Your task to perform on an android device: search for starred emails in the gmail app Image 0: 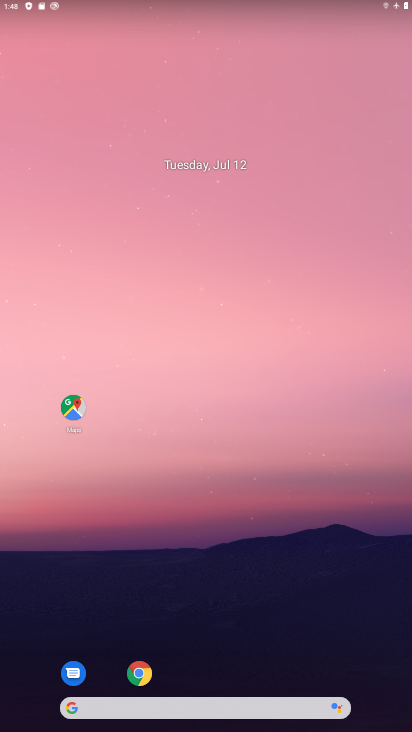
Step 0: drag from (102, 673) to (156, 287)
Your task to perform on an android device: search for starred emails in the gmail app Image 1: 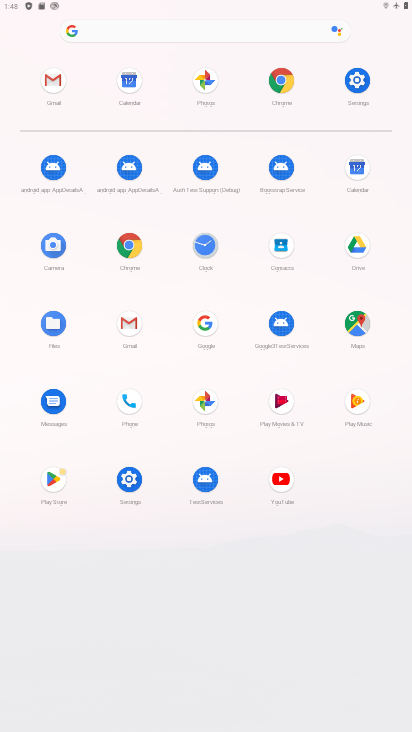
Step 1: click (140, 320)
Your task to perform on an android device: search for starred emails in the gmail app Image 2: 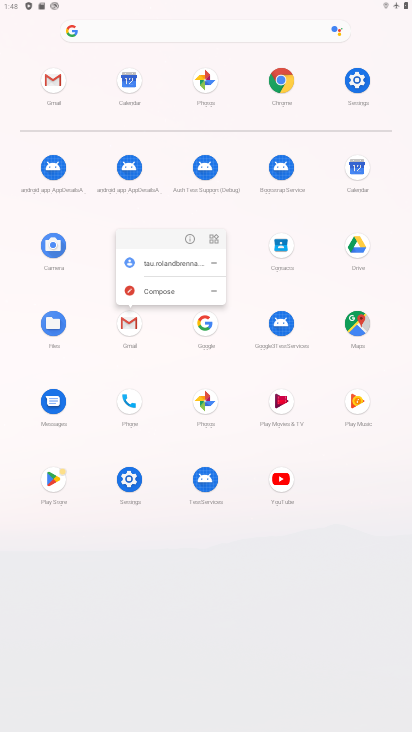
Step 2: click (118, 320)
Your task to perform on an android device: search for starred emails in the gmail app Image 3: 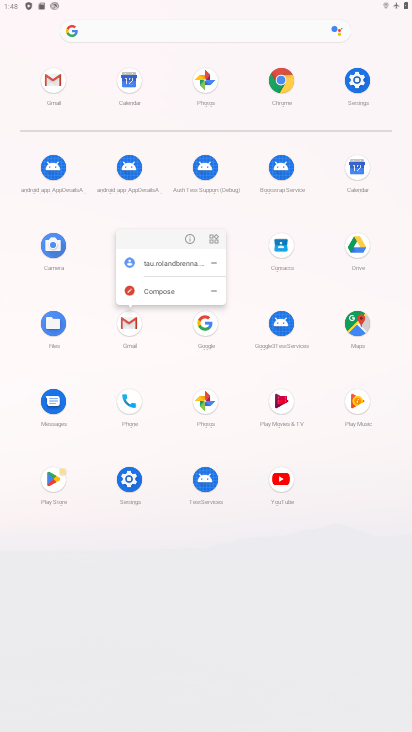
Step 3: click (124, 320)
Your task to perform on an android device: search for starred emails in the gmail app Image 4: 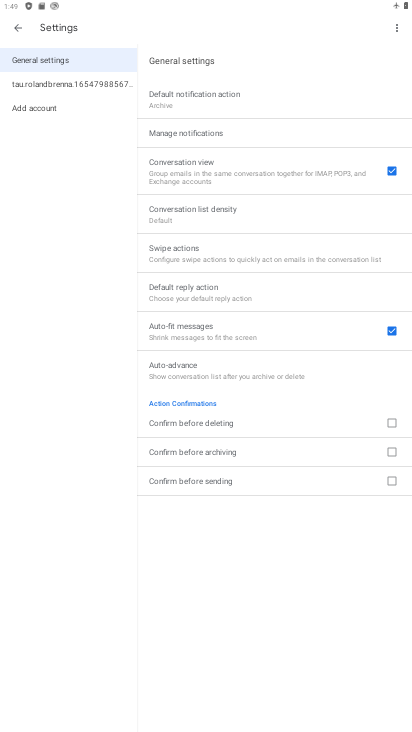
Step 4: click (17, 30)
Your task to perform on an android device: search for starred emails in the gmail app Image 5: 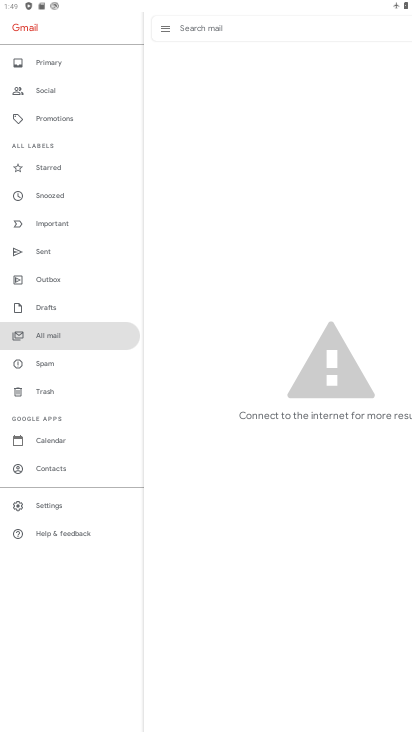
Step 5: click (60, 164)
Your task to perform on an android device: search for starred emails in the gmail app Image 6: 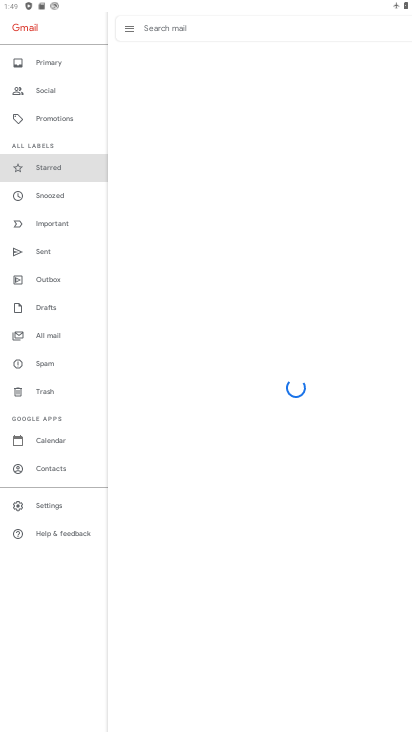
Step 6: task complete